Your task to perform on an android device: toggle location history Image 0: 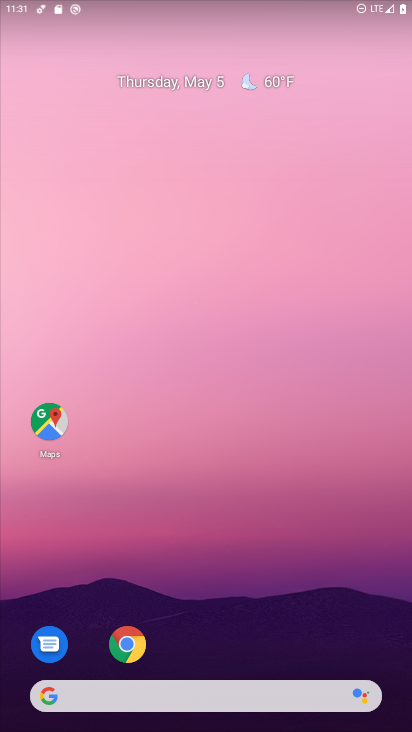
Step 0: drag from (376, 618) to (368, 121)
Your task to perform on an android device: toggle location history Image 1: 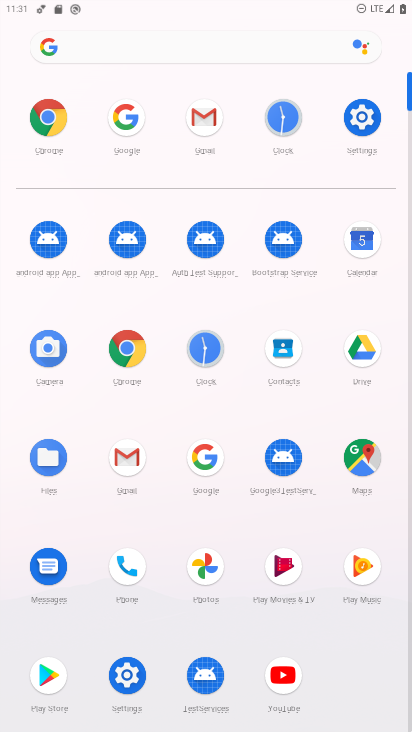
Step 1: click (136, 681)
Your task to perform on an android device: toggle location history Image 2: 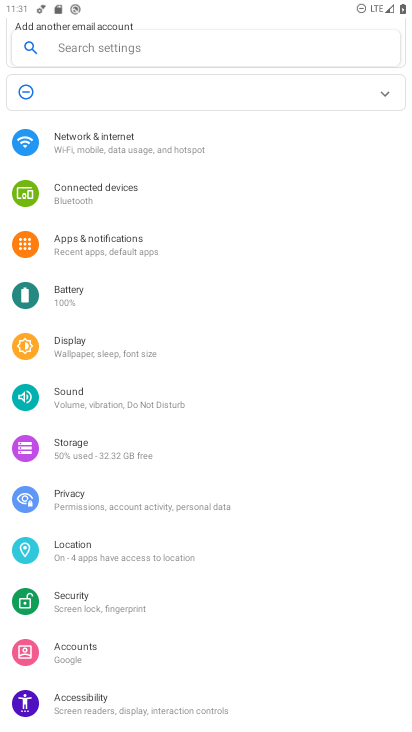
Step 2: click (154, 556)
Your task to perform on an android device: toggle location history Image 3: 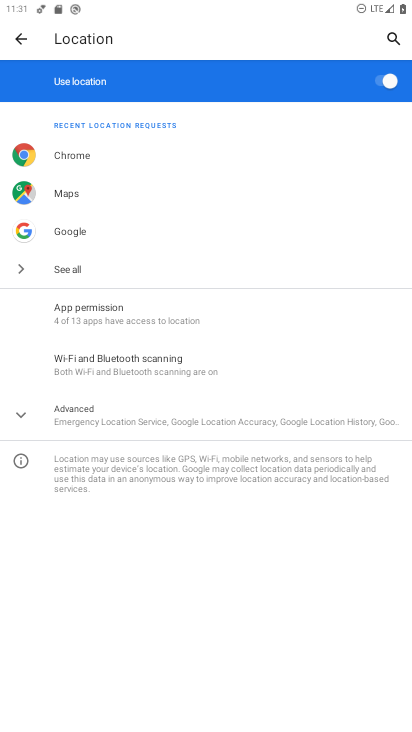
Step 3: click (116, 421)
Your task to perform on an android device: toggle location history Image 4: 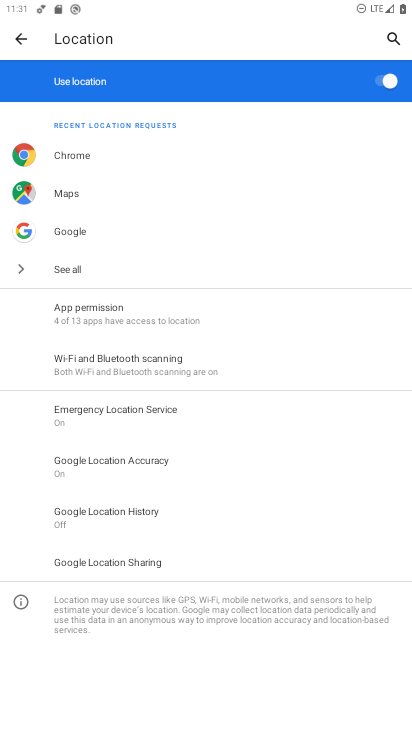
Step 4: click (118, 462)
Your task to perform on an android device: toggle location history Image 5: 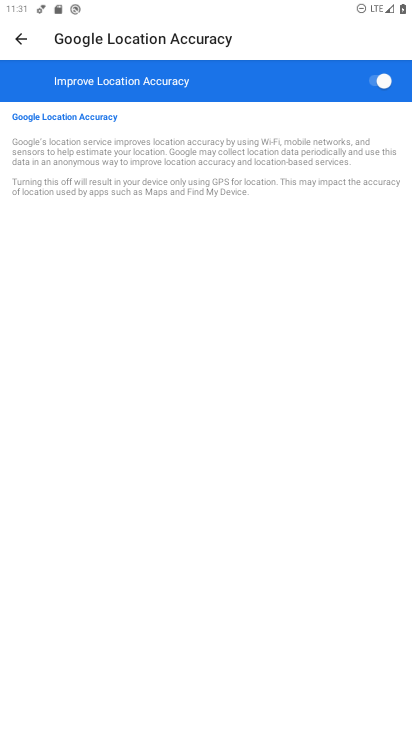
Step 5: click (370, 77)
Your task to perform on an android device: toggle location history Image 6: 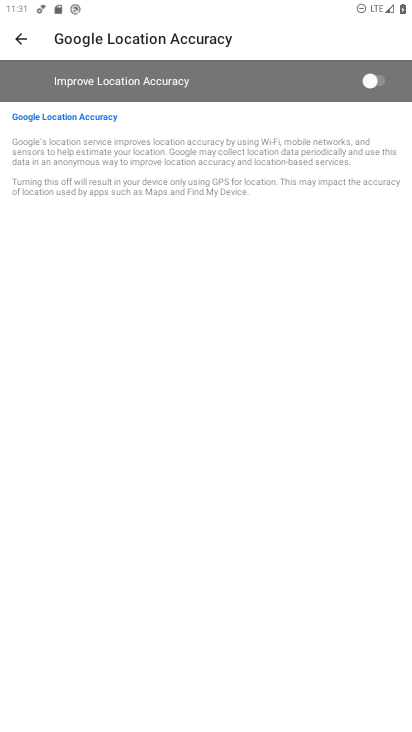
Step 6: task complete